Your task to perform on an android device: turn on the 12-hour format for clock Image 0: 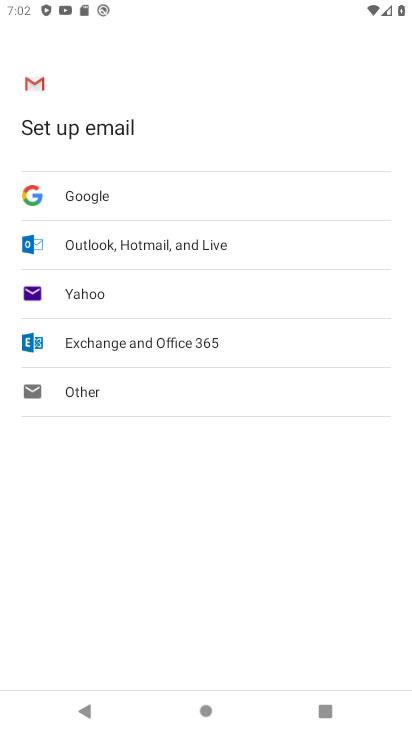
Step 0: press home button
Your task to perform on an android device: turn on the 12-hour format for clock Image 1: 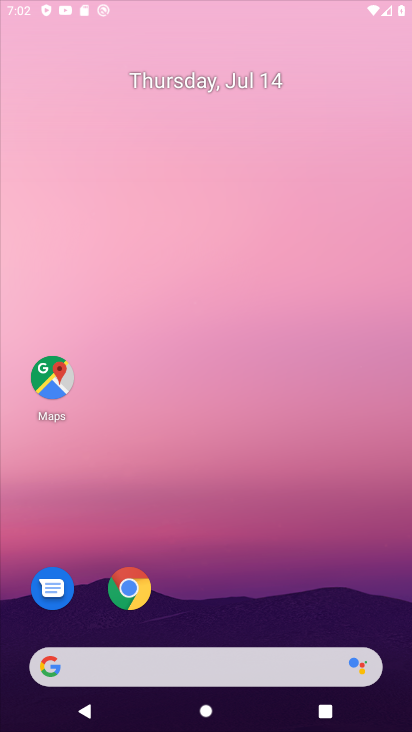
Step 1: drag from (390, 658) to (287, 12)
Your task to perform on an android device: turn on the 12-hour format for clock Image 2: 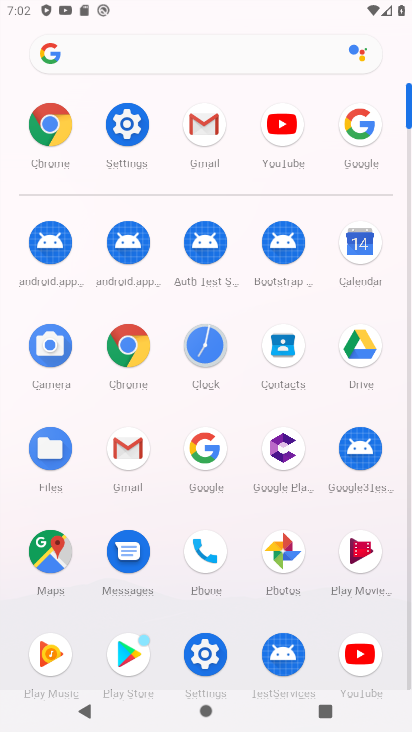
Step 2: click (213, 347)
Your task to perform on an android device: turn on the 12-hour format for clock Image 3: 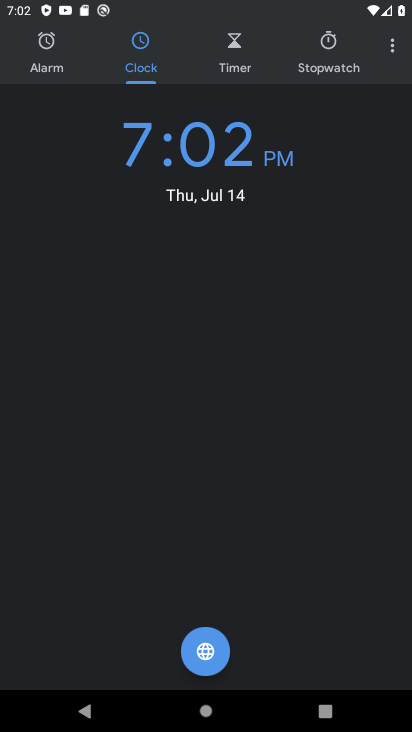
Step 3: click (395, 36)
Your task to perform on an android device: turn on the 12-hour format for clock Image 4: 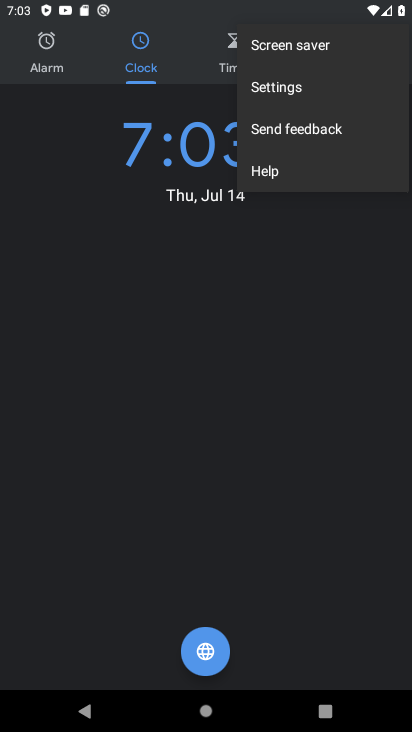
Step 4: click (262, 79)
Your task to perform on an android device: turn on the 12-hour format for clock Image 5: 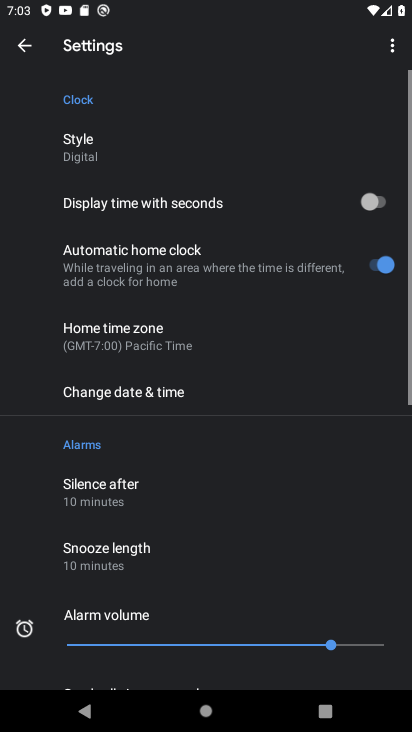
Step 5: click (150, 391)
Your task to perform on an android device: turn on the 12-hour format for clock Image 6: 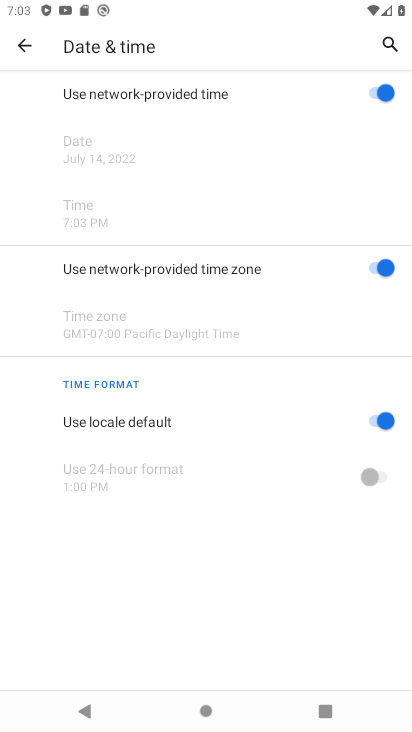
Step 6: task complete